Your task to perform on an android device: Search for Mexican restaurants on Maps Image 0: 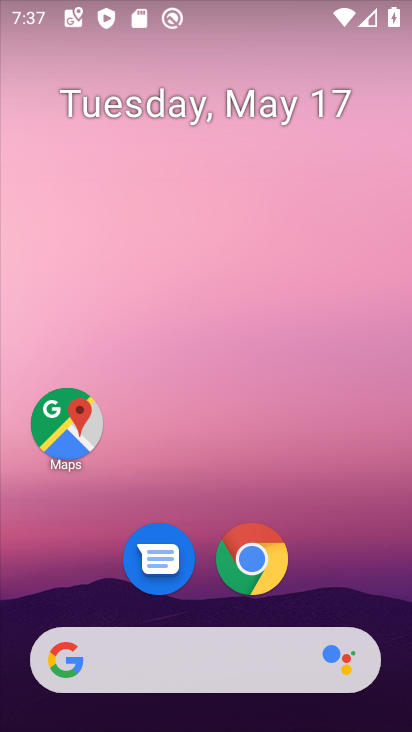
Step 0: click (64, 431)
Your task to perform on an android device: Search for Mexican restaurants on Maps Image 1: 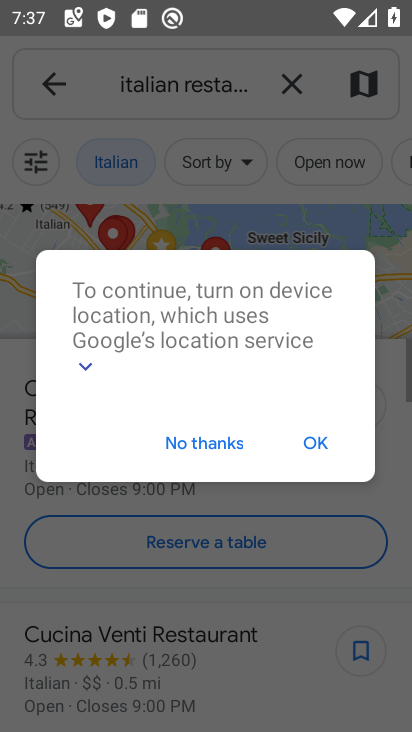
Step 1: click (286, 91)
Your task to perform on an android device: Search for Mexican restaurants on Maps Image 2: 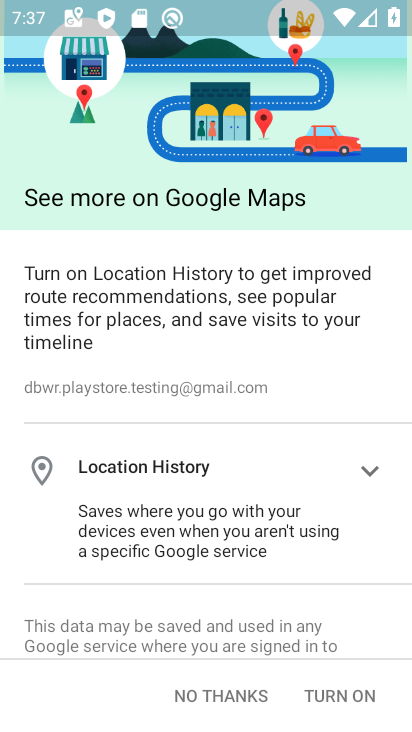
Step 2: click (235, 699)
Your task to perform on an android device: Search for Mexican restaurants on Maps Image 3: 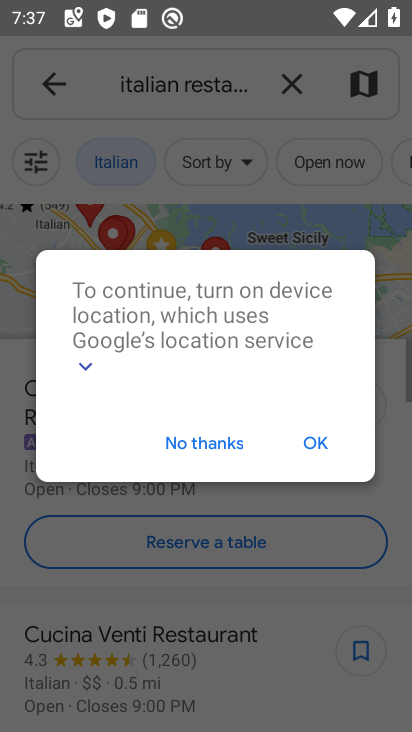
Step 3: click (175, 447)
Your task to perform on an android device: Search for Mexican restaurants on Maps Image 4: 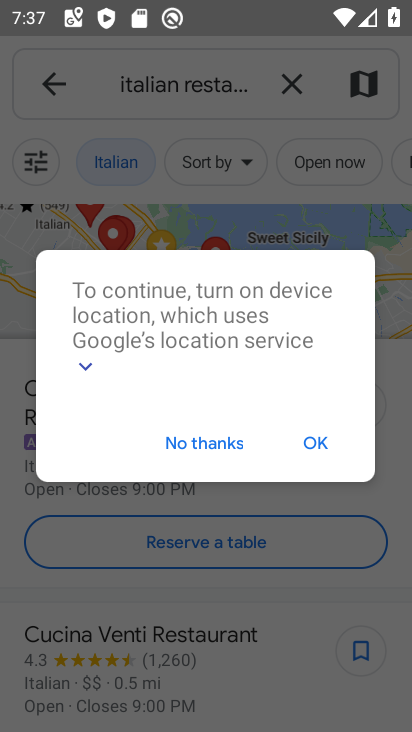
Step 4: click (291, 96)
Your task to perform on an android device: Search for Mexican restaurants on Maps Image 5: 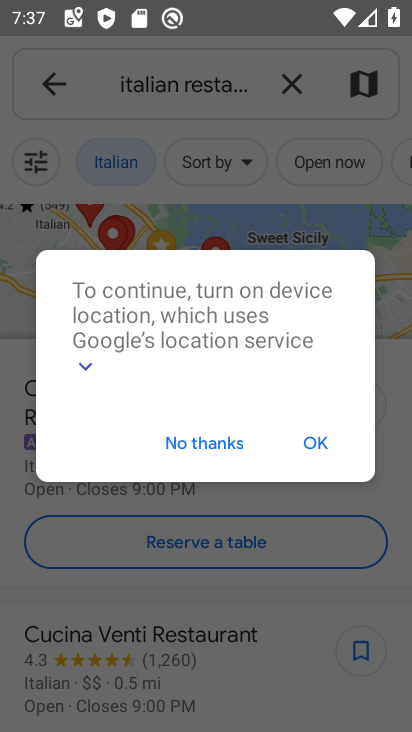
Step 5: click (195, 448)
Your task to perform on an android device: Search for Mexican restaurants on Maps Image 6: 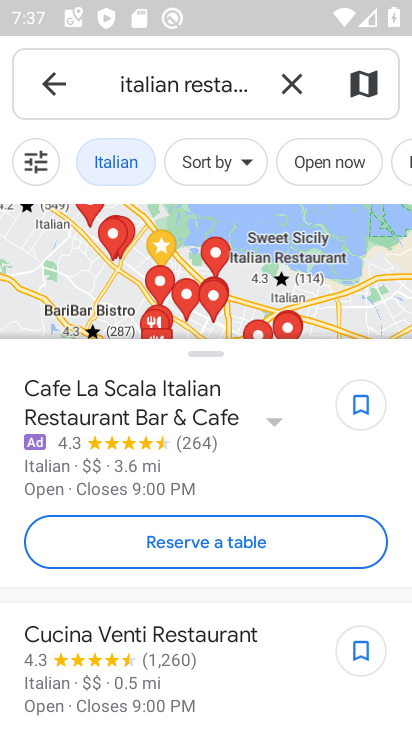
Step 6: click (281, 84)
Your task to perform on an android device: Search for Mexican restaurants on Maps Image 7: 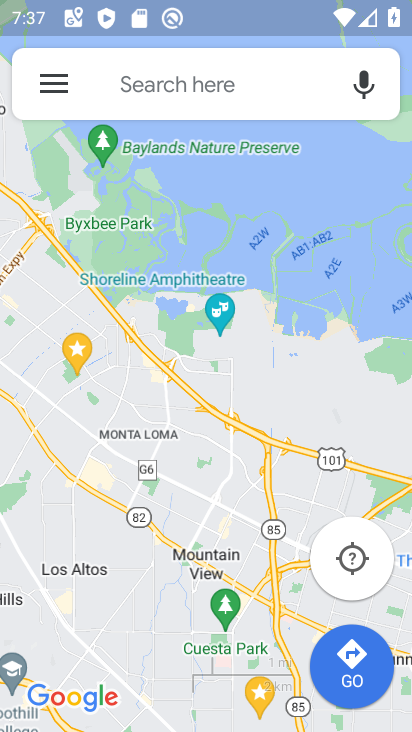
Step 7: click (174, 87)
Your task to perform on an android device: Search for Mexican restaurants on Maps Image 8: 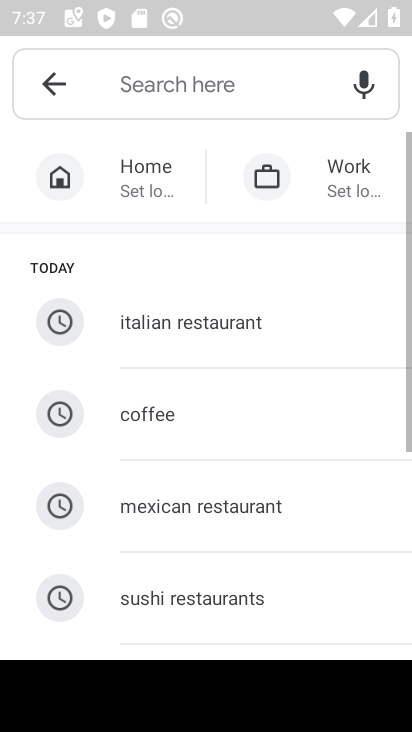
Step 8: click (199, 510)
Your task to perform on an android device: Search for Mexican restaurants on Maps Image 9: 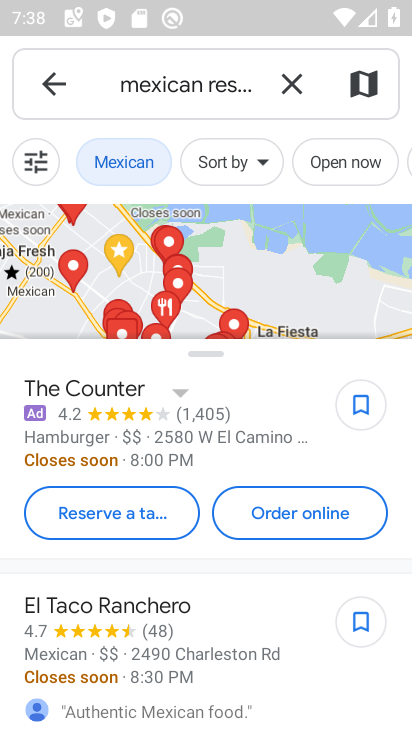
Step 9: task complete